Your task to perform on an android device: open app "LiveIn - Share Your Moment" (install if not already installed) Image 0: 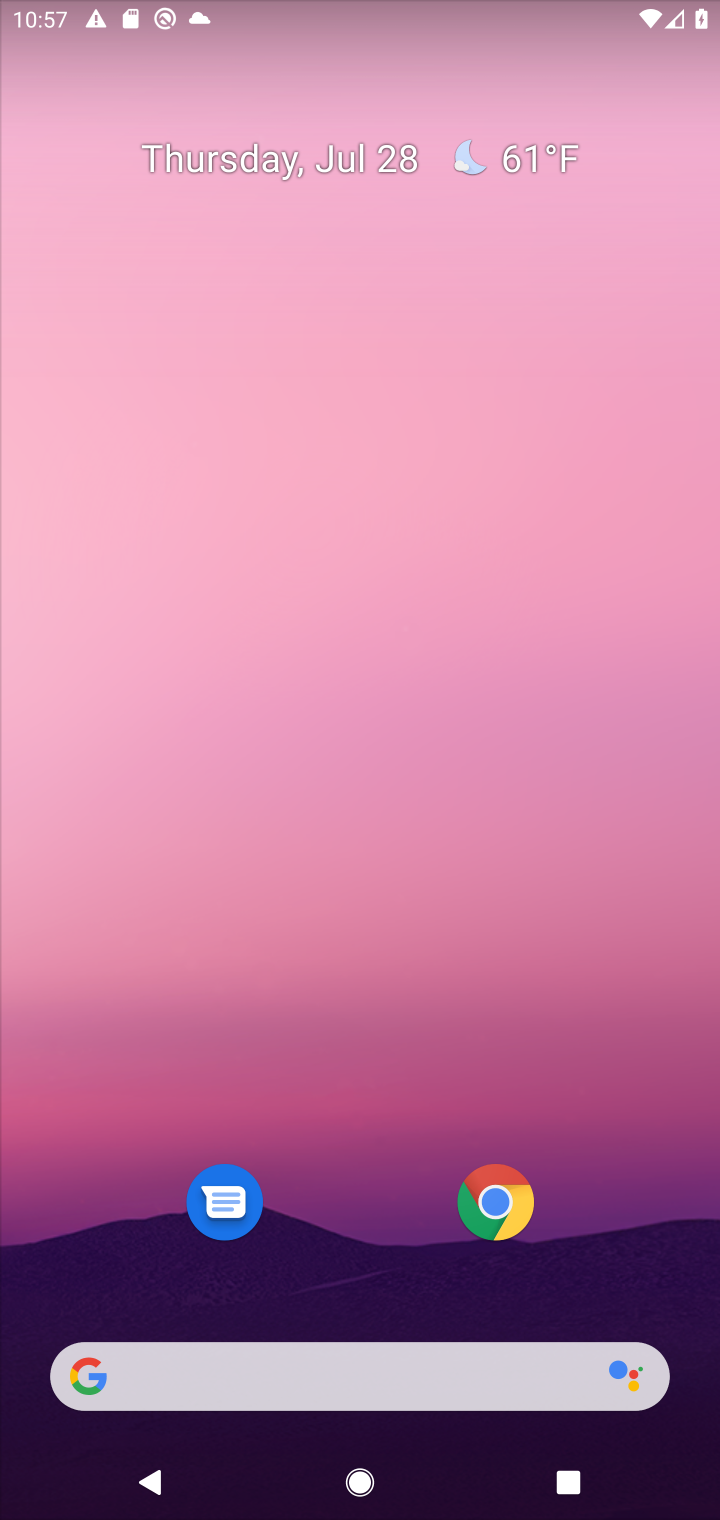
Step 0: click (350, 1361)
Your task to perform on an android device: open app "LiveIn - Share Your Moment" (install if not already installed) Image 1: 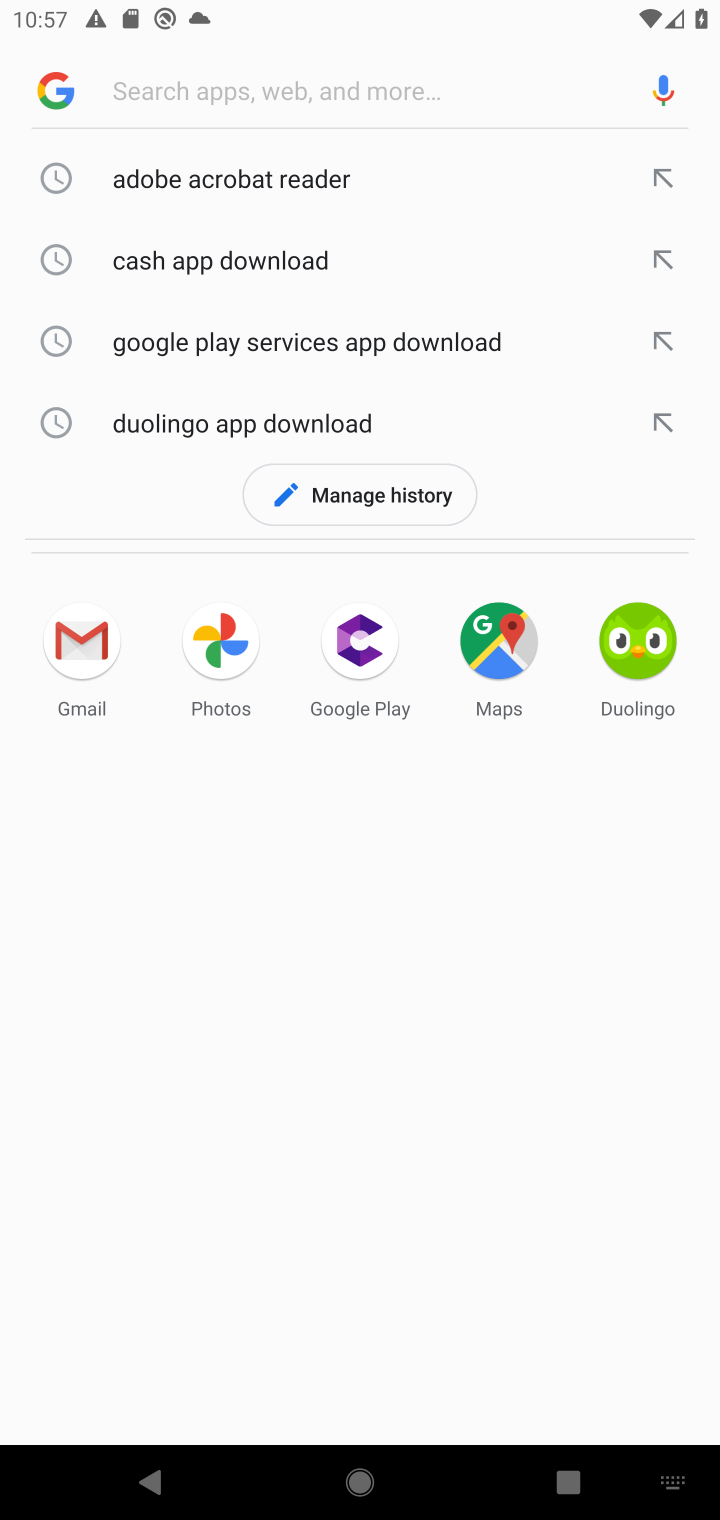
Step 1: type "livein"
Your task to perform on an android device: open app "LiveIn - Share Your Moment" (install if not already installed) Image 2: 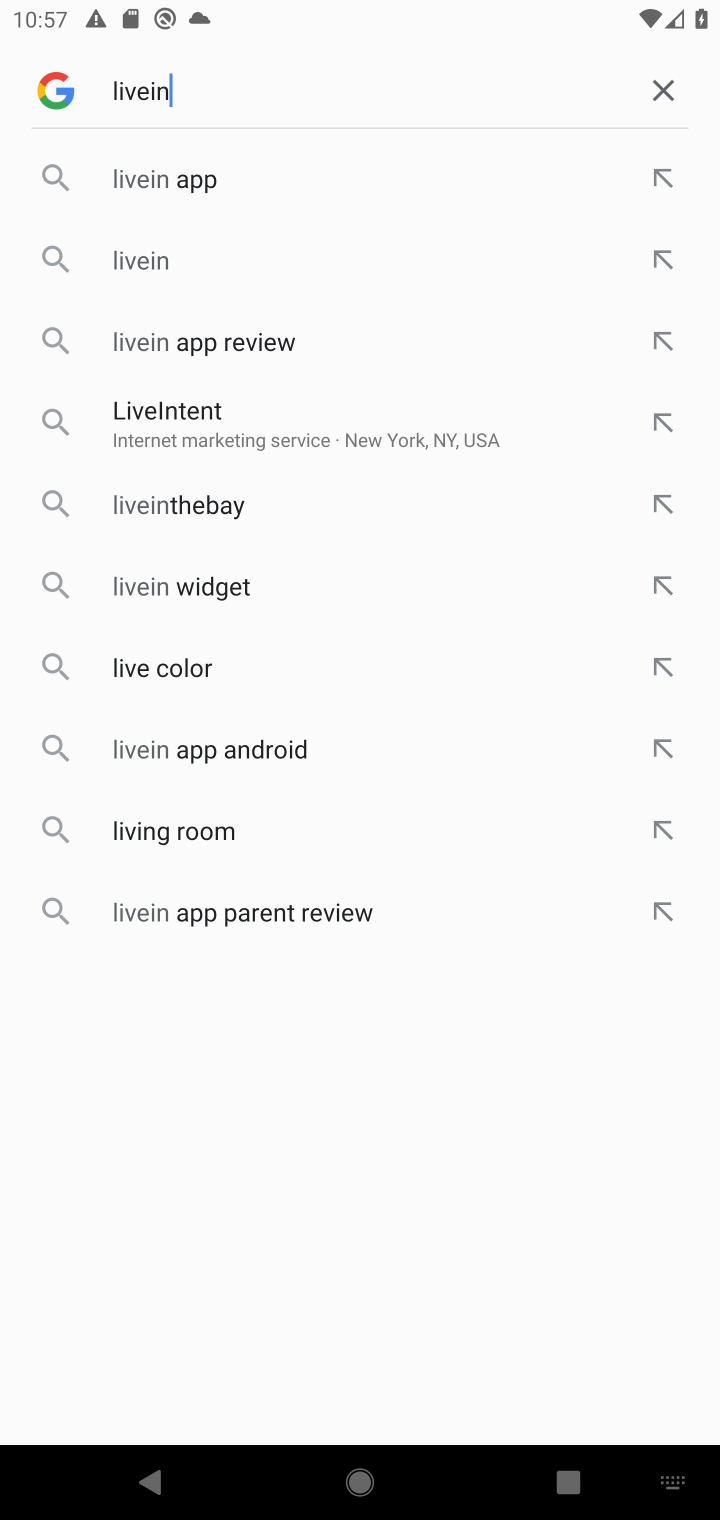
Step 2: click (282, 149)
Your task to perform on an android device: open app "LiveIn - Share Your Moment" (install if not already installed) Image 3: 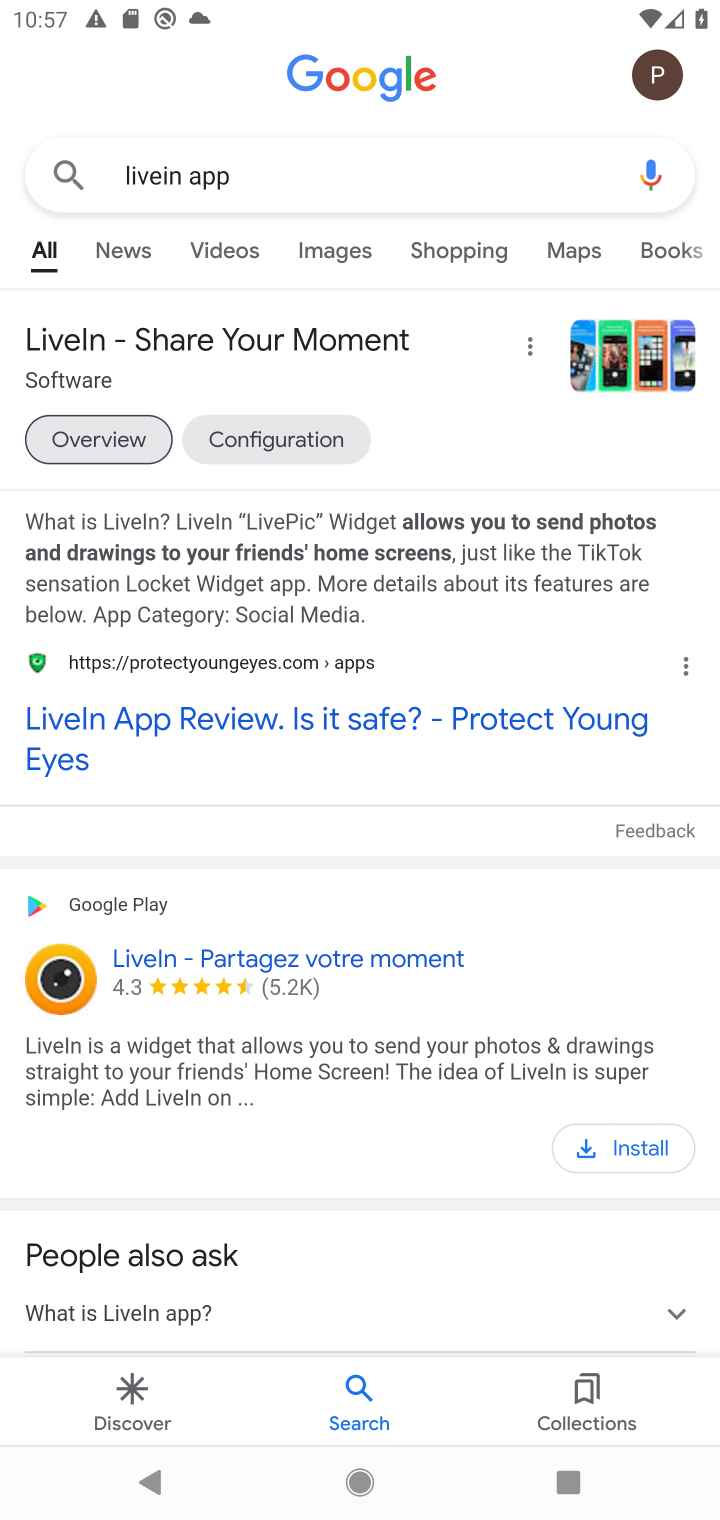
Step 3: click (619, 1139)
Your task to perform on an android device: open app "LiveIn - Share Your Moment" (install if not already installed) Image 4: 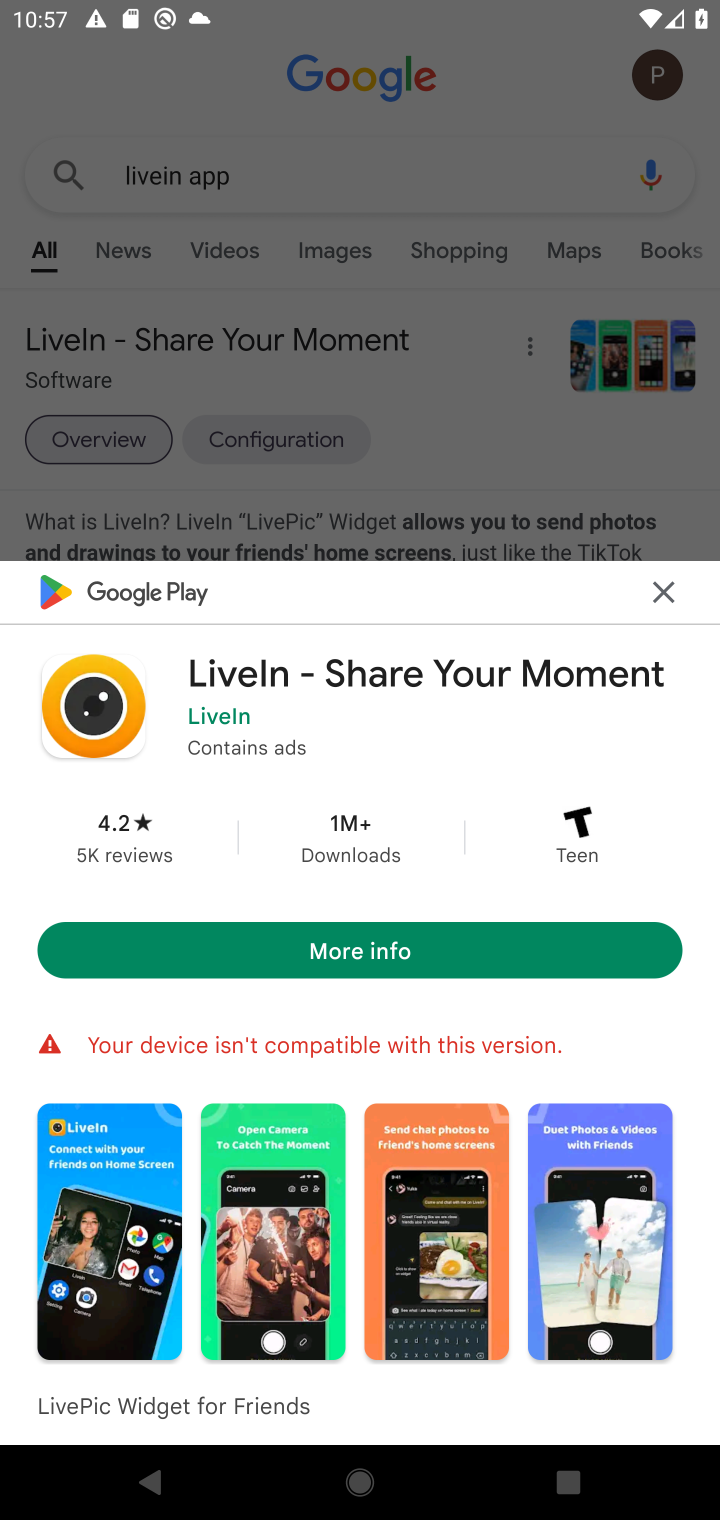
Step 4: task complete